Your task to perform on an android device: make emails show in primary in the gmail app Image 0: 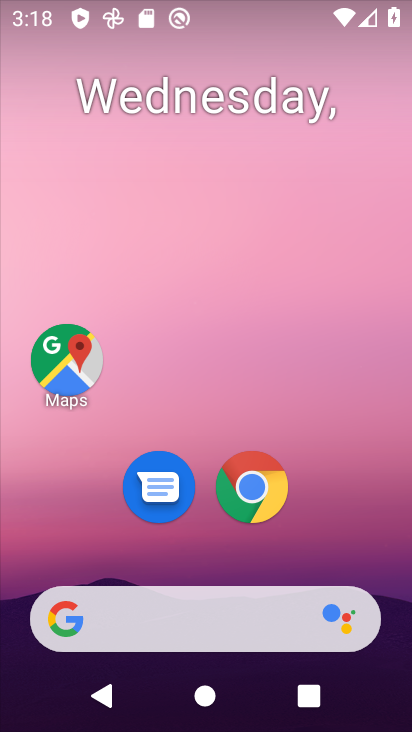
Step 0: drag from (377, 549) to (365, 176)
Your task to perform on an android device: make emails show in primary in the gmail app Image 1: 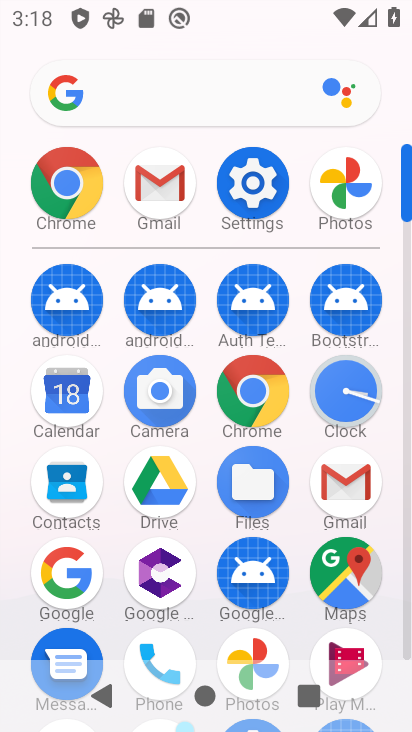
Step 1: click (335, 487)
Your task to perform on an android device: make emails show in primary in the gmail app Image 2: 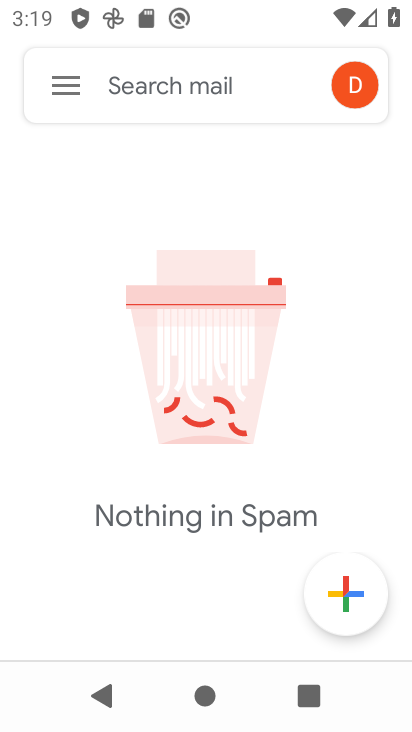
Step 2: click (63, 95)
Your task to perform on an android device: make emails show in primary in the gmail app Image 3: 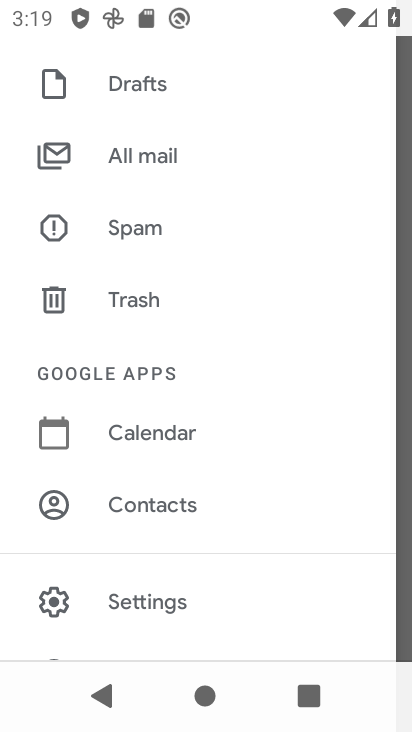
Step 3: drag from (281, 408) to (289, 491)
Your task to perform on an android device: make emails show in primary in the gmail app Image 4: 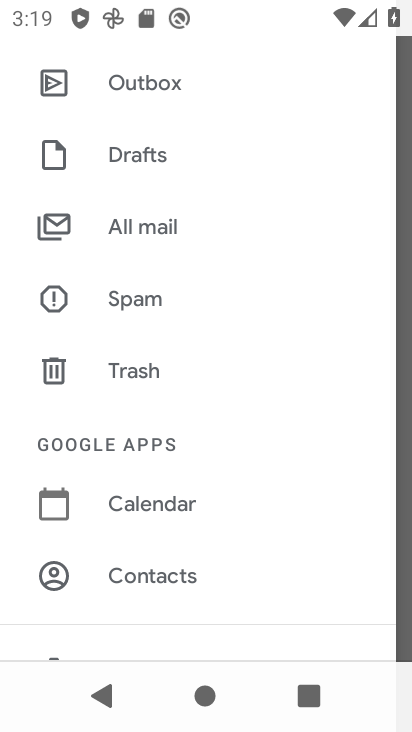
Step 4: drag from (298, 329) to (304, 419)
Your task to perform on an android device: make emails show in primary in the gmail app Image 5: 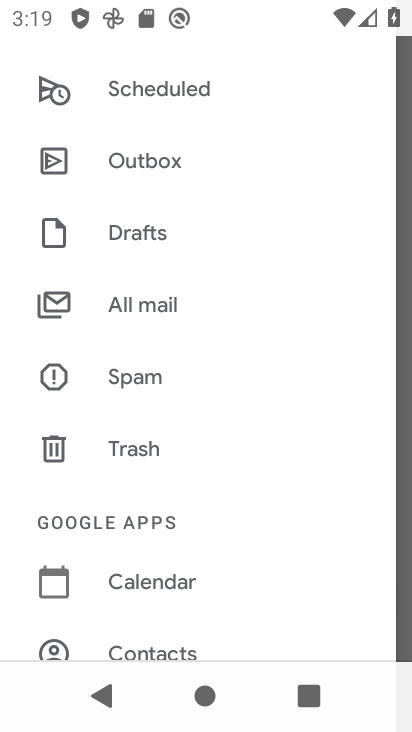
Step 5: drag from (315, 316) to (303, 470)
Your task to perform on an android device: make emails show in primary in the gmail app Image 6: 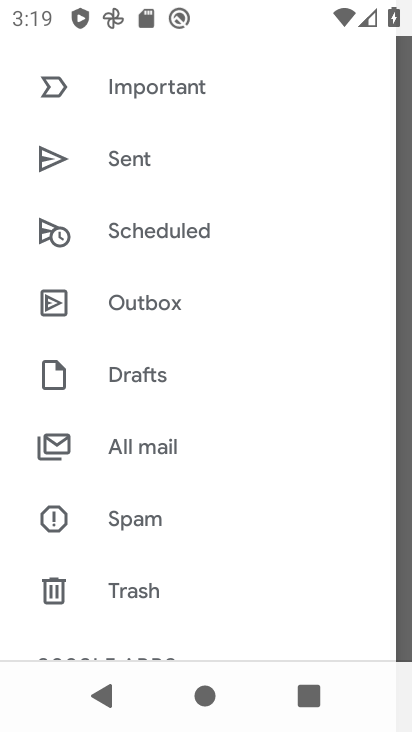
Step 6: drag from (319, 301) to (319, 433)
Your task to perform on an android device: make emails show in primary in the gmail app Image 7: 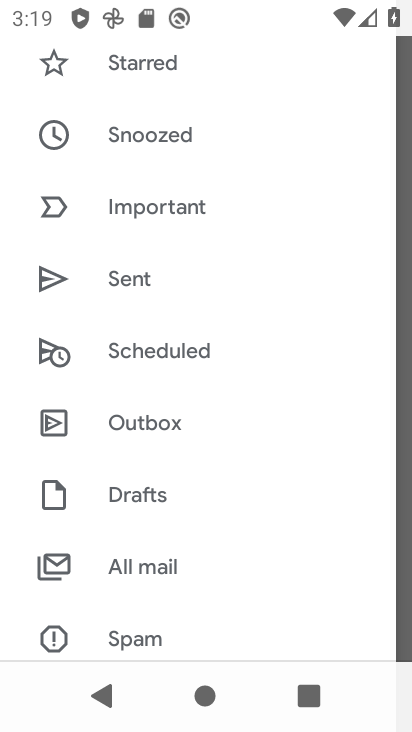
Step 7: drag from (319, 281) to (312, 402)
Your task to perform on an android device: make emails show in primary in the gmail app Image 8: 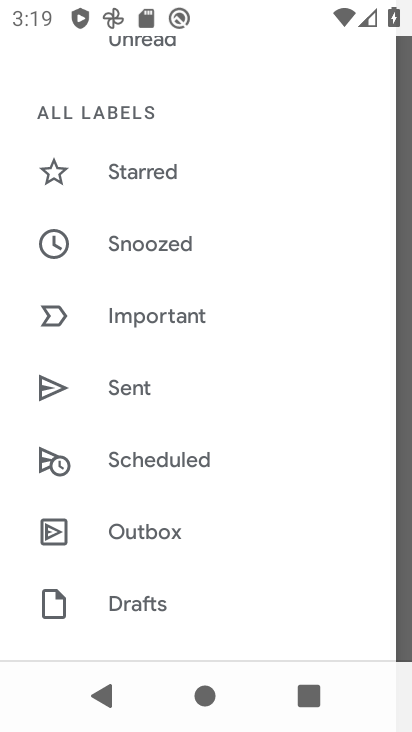
Step 8: drag from (306, 251) to (305, 357)
Your task to perform on an android device: make emails show in primary in the gmail app Image 9: 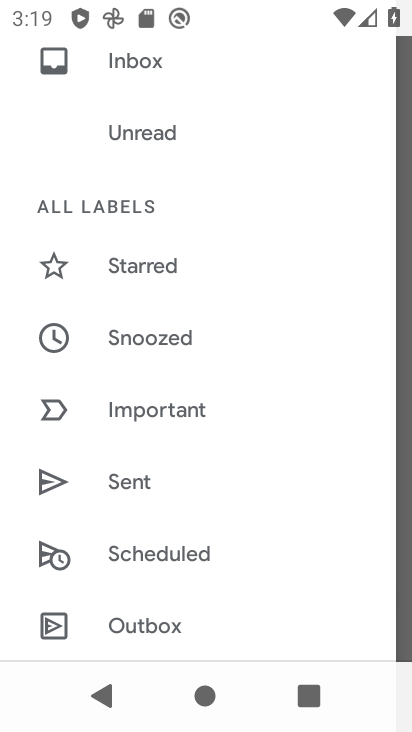
Step 9: drag from (293, 300) to (285, 457)
Your task to perform on an android device: make emails show in primary in the gmail app Image 10: 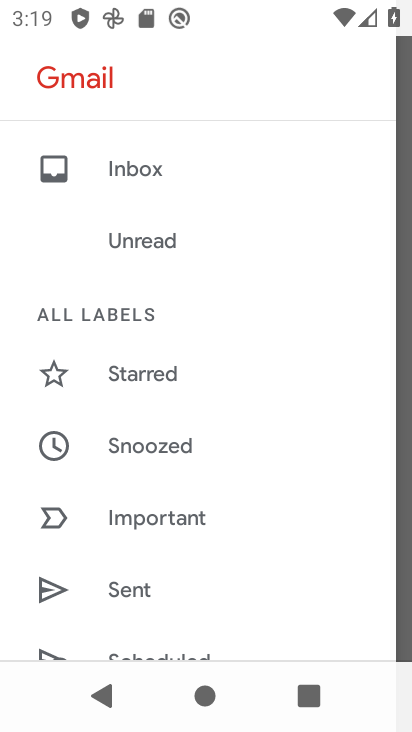
Step 10: drag from (295, 526) to (300, 383)
Your task to perform on an android device: make emails show in primary in the gmail app Image 11: 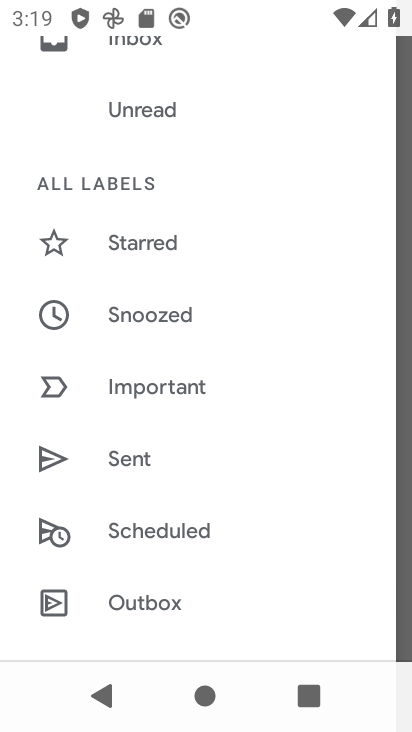
Step 11: drag from (294, 552) to (302, 430)
Your task to perform on an android device: make emails show in primary in the gmail app Image 12: 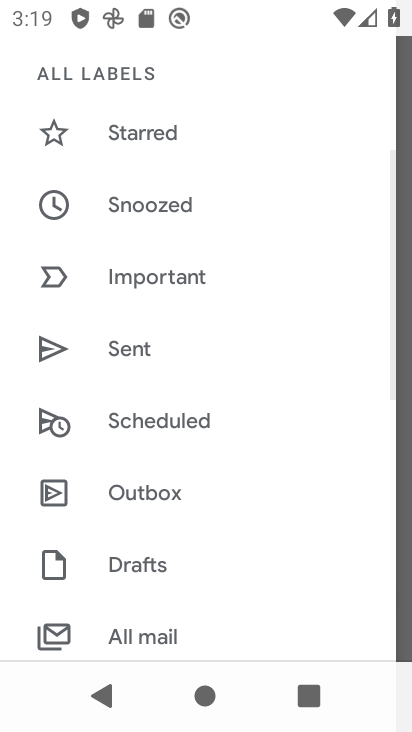
Step 12: drag from (295, 576) to (306, 420)
Your task to perform on an android device: make emails show in primary in the gmail app Image 13: 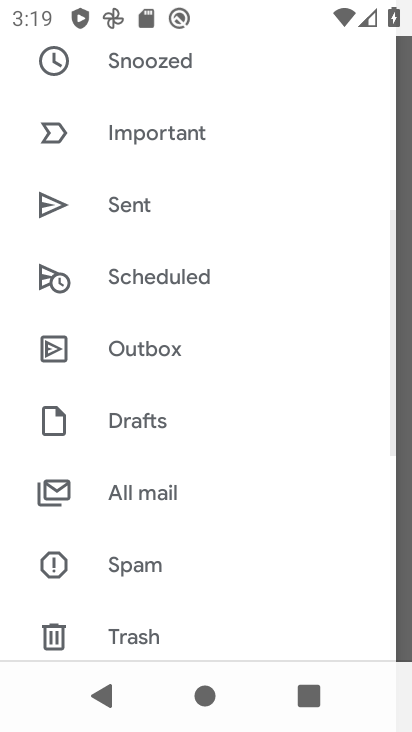
Step 13: drag from (287, 575) to (297, 465)
Your task to perform on an android device: make emails show in primary in the gmail app Image 14: 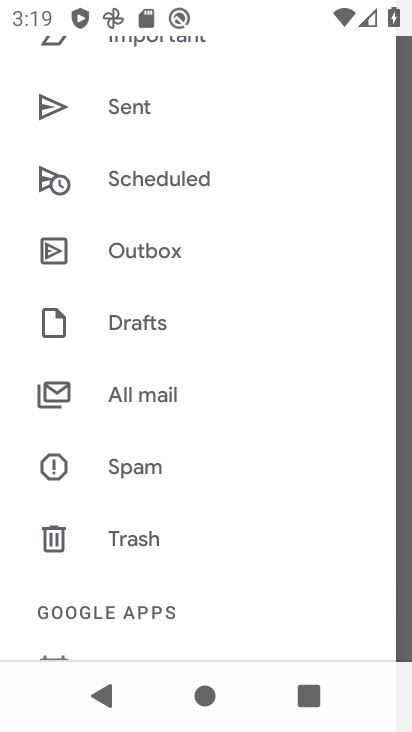
Step 14: drag from (280, 580) to (286, 451)
Your task to perform on an android device: make emails show in primary in the gmail app Image 15: 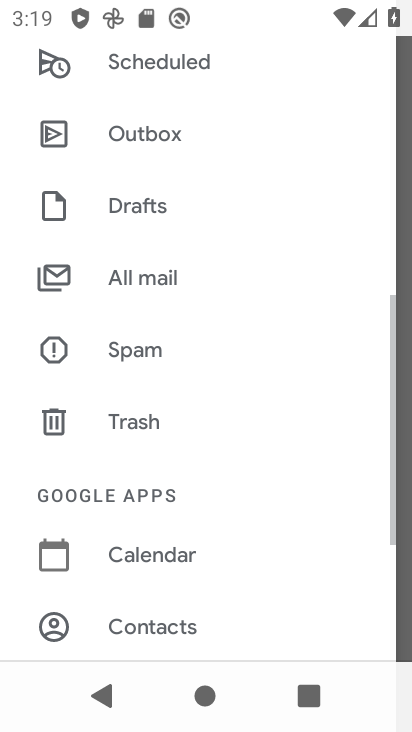
Step 15: drag from (276, 588) to (276, 468)
Your task to perform on an android device: make emails show in primary in the gmail app Image 16: 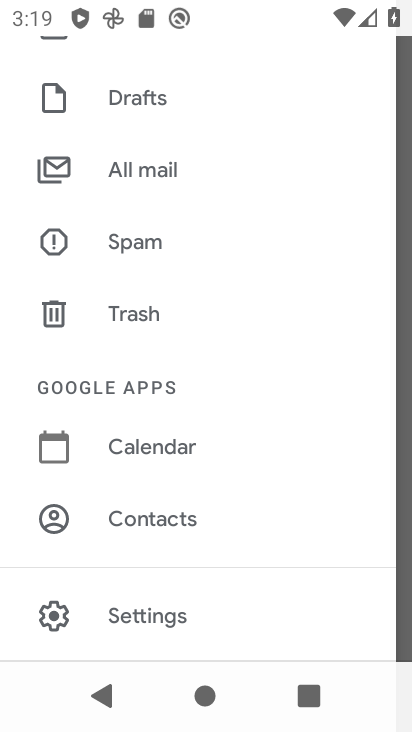
Step 16: drag from (275, 583) to (276, 454)
Your task to perform on an android device: make emails show in primary in the gmail app Image 17: 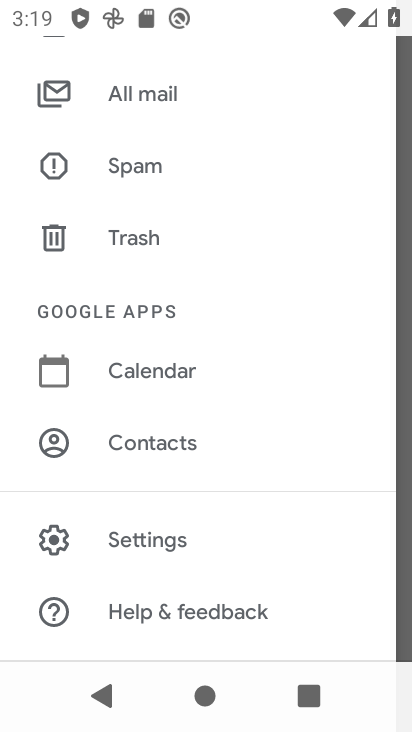
Step 17: drag from (259, 614) to (278, 482)
Your task to perform on an android device: make emails show in primary in the gmail app Image 18: 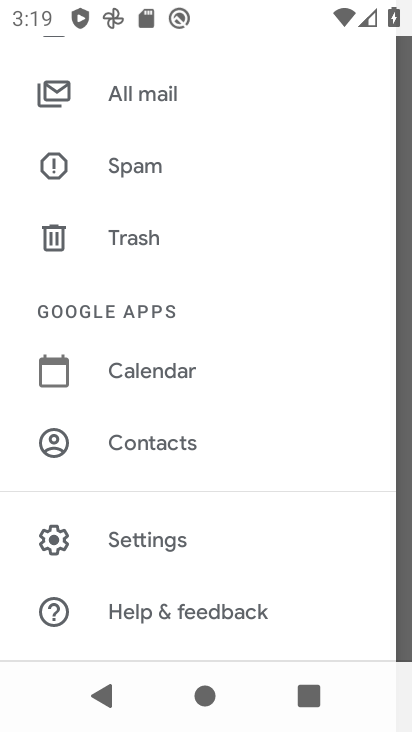
Step 18: click (168, 539)
Your task to perform on an android device: make emails show in primary in the gmail app Image 19: 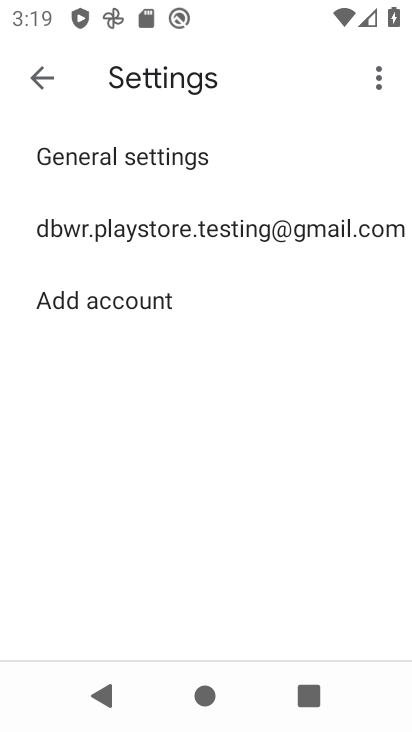
Step 19: click (220, 232)
Your task to perform on an android device: make emails show in primary in the gmail app Image 20: 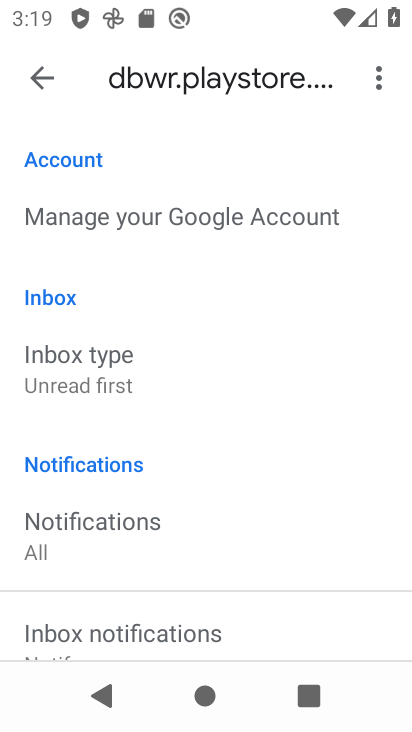
Step 20: drag from (283, 599) to (284, 450)
Your task to perform on an android device: make emails show in primary in the gmail app Image 21: 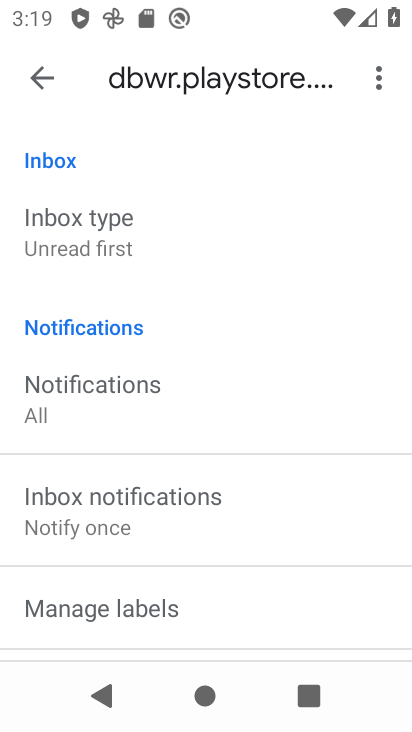
Step 21: drag from (281, 579) to (284, 437)
Your task to perform on an android device: make emails show in primary in the gmail app Image 22: 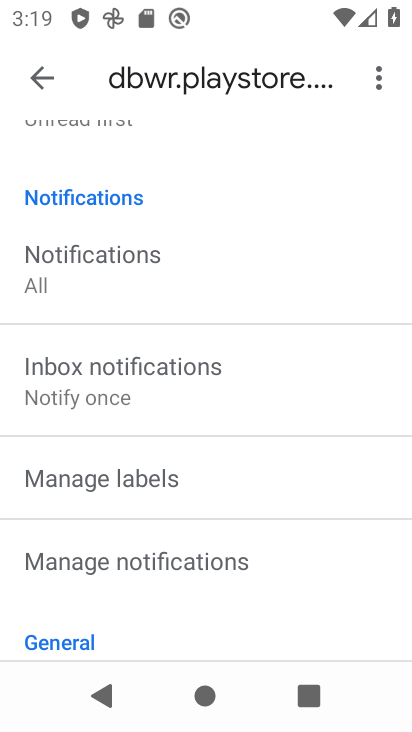
Step 22: drag from (288, 586) to (289, 480)
Your task to perform on an android device: make emails show in primary in the gmail app Image 23: 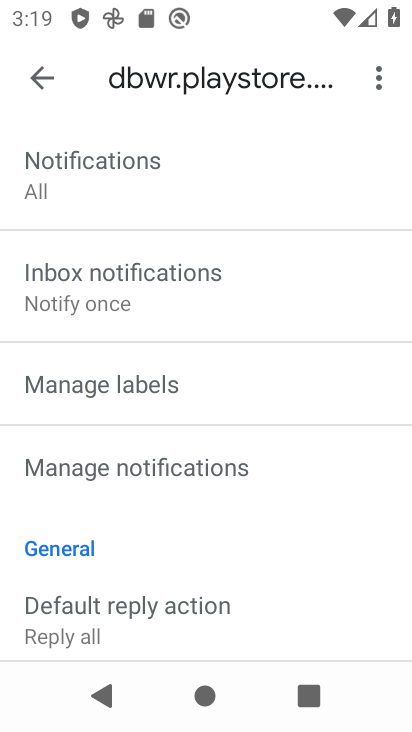
Step 23: drag from (284, 619) to (288, 520)
Your task to perform on an android device: make emails show in primary in the gmail app Image 24: 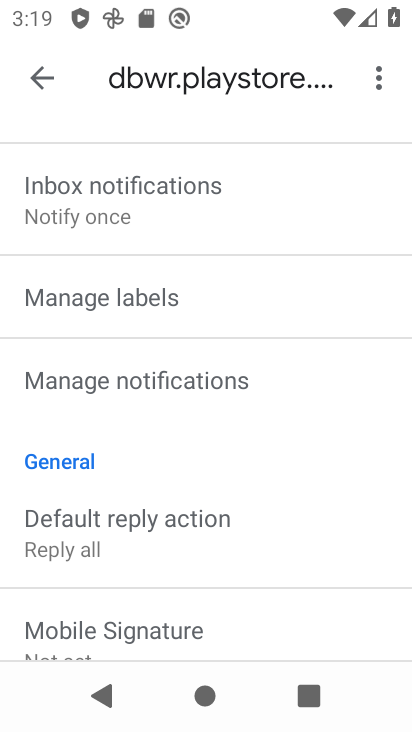
Step 24: drag from (278, 622) to (284, 496)
Your task to perform on an android device: make emails show in primary in the gmail app Image 25: 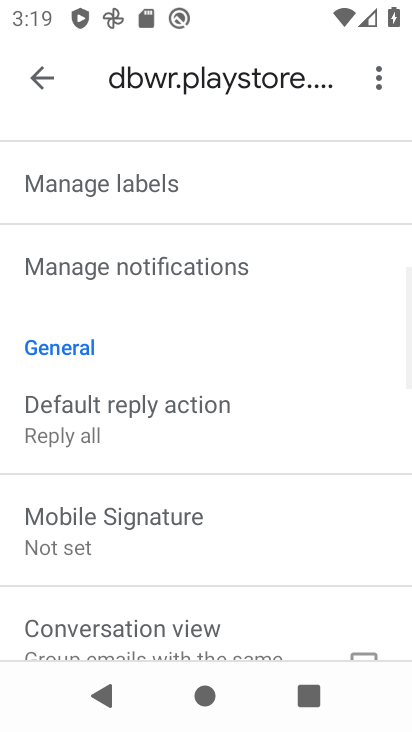
Step 25: drag from (317, 301) to (317, 468)
Your task to perform on an android device: make emails show in primary in the gmail app Image 26: 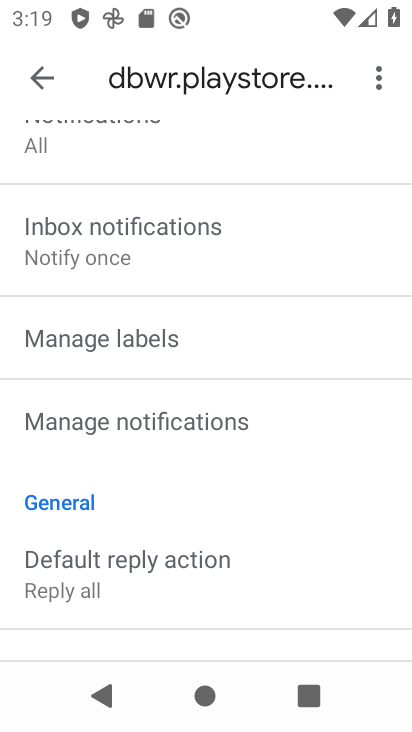
Step 26: drag from (313, 277) to (314, 394)
Your task to perform on an android device: make emails show in primary in the gmail app Image 27: 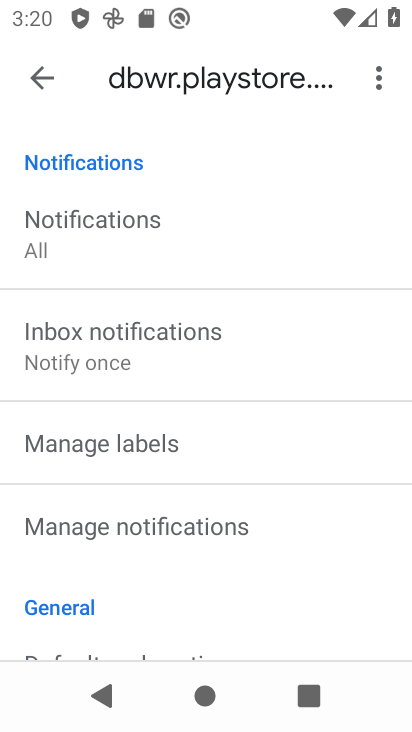
Step 27: drag from (307, 255) to (309, 404)
Your task to perform on an android device: make emails show in primary in the gmail app Image 28: 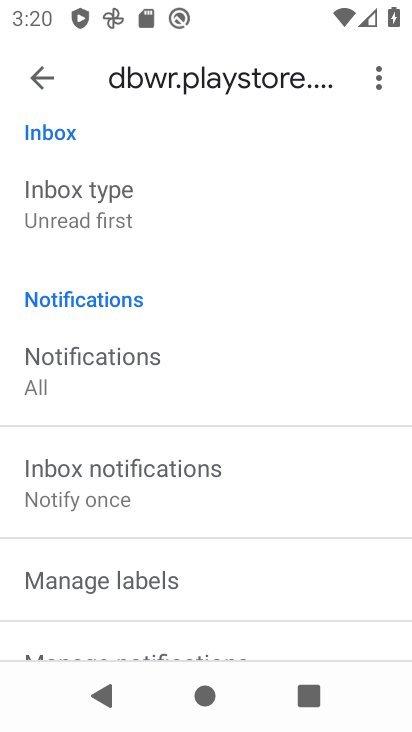
Step 28: drag from (273, 225) to (279, 387)
Your task to perform on an android device: make emails show in primary in the gmail app Image 29: 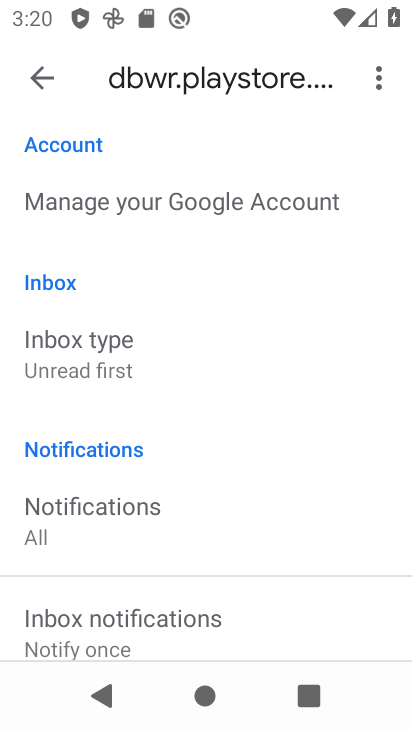
Step 29: click (99, 361)
Your task to perform on an android device: make emails show in primary in the gmail app Image 30: 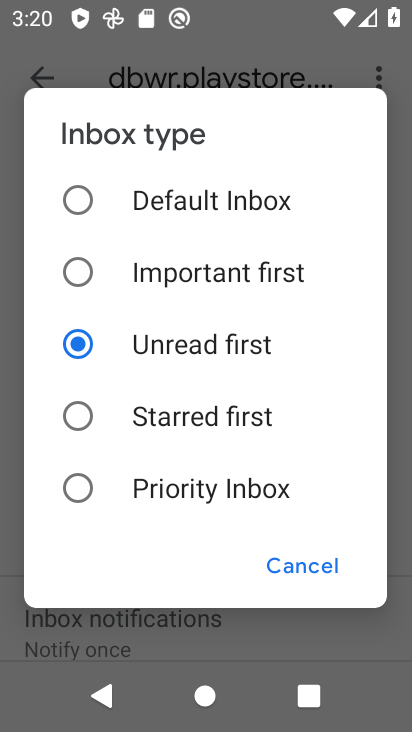
Step 30: click (84, 203)
Your task to perform on an android device: make emails show in primary in the gmail app Image 31: 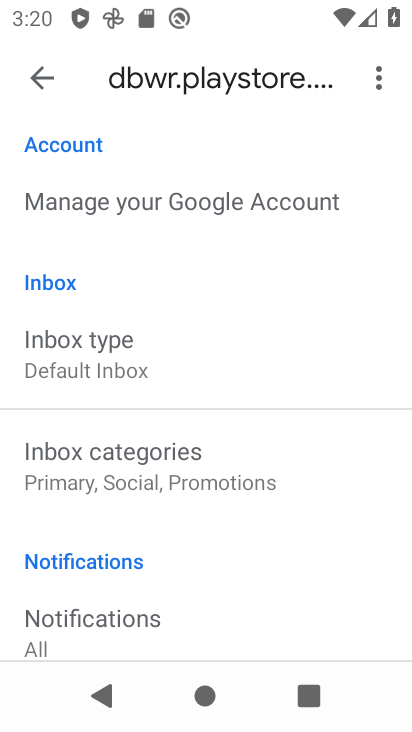
Step 31: drag from (242, 537) to (243, 370)
Your task to perform on an android device: make emails show in primary in the gmail app Image 32: 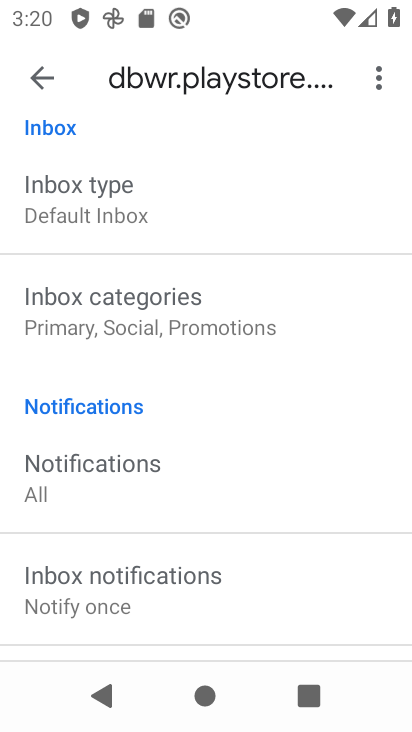
Step 32: click (141, 319)
Your task to perform on an android device: make emails show in primary in the gmail app Image 33: 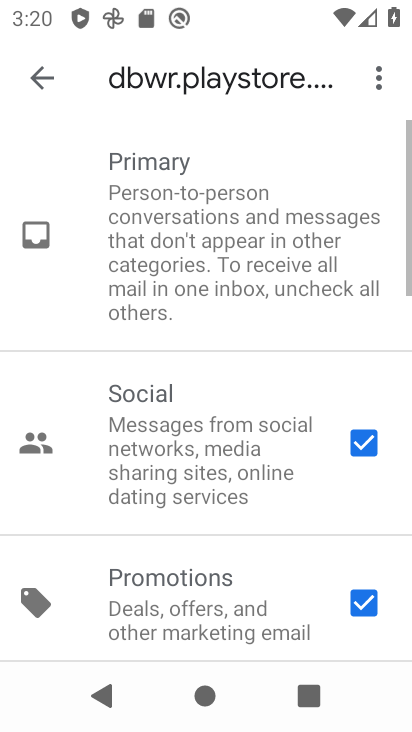
Step 33: click (371, 439)
Your task to perform on an android device: make emails show in primary in the gmail app Image 34: 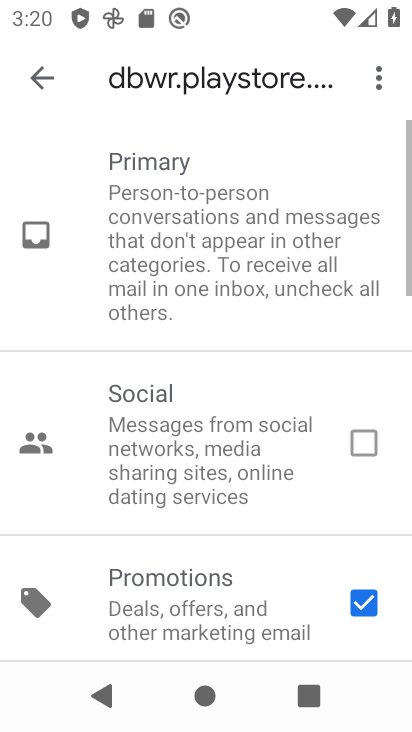
Step 34: click (358, 609)
Your task to perform on an android device: make emails show in primary in the gmail app Image 35: 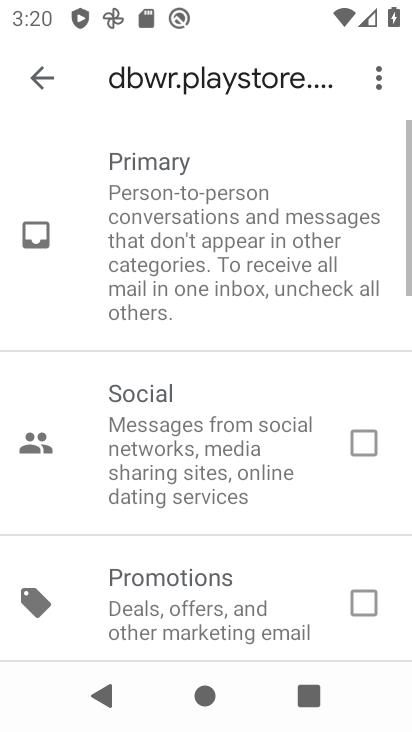
Step 35: task complete